Your task to perform on an android device: open a bookmark in the chrome app Image 0: 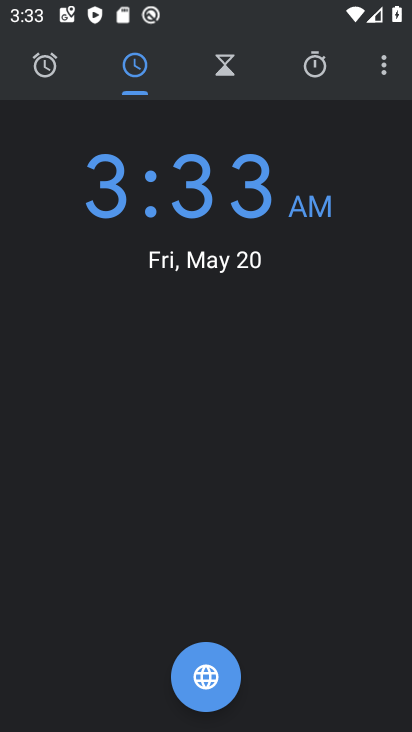
Step 0: press back button
Your task to perform on an android device: open a bookmark in the chrome app Image 1: 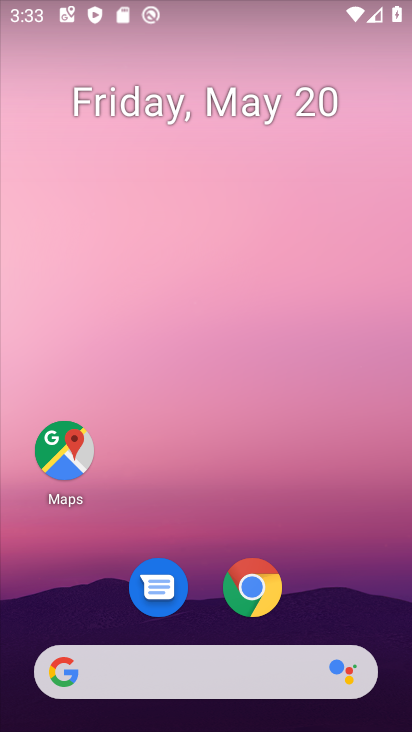
Step 1: drag from (320, 569) to (254, 22)
Your task to perform on an android device: open a bookmark in the chrome app Image 2: 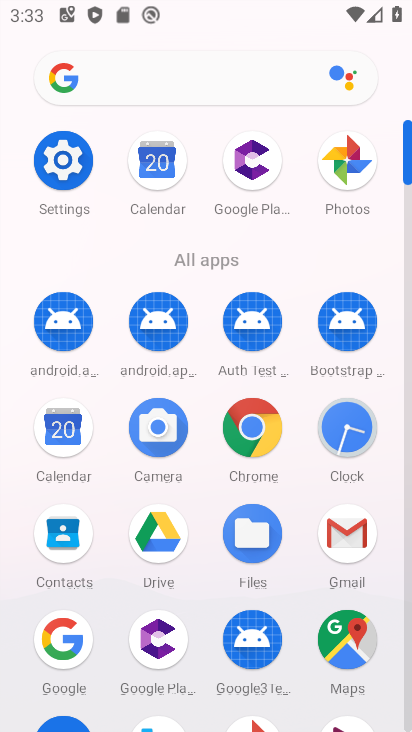
Step 2: click (249, 426)
Your task to perform on an android device: open a bookmark in the chrome app Image 3: 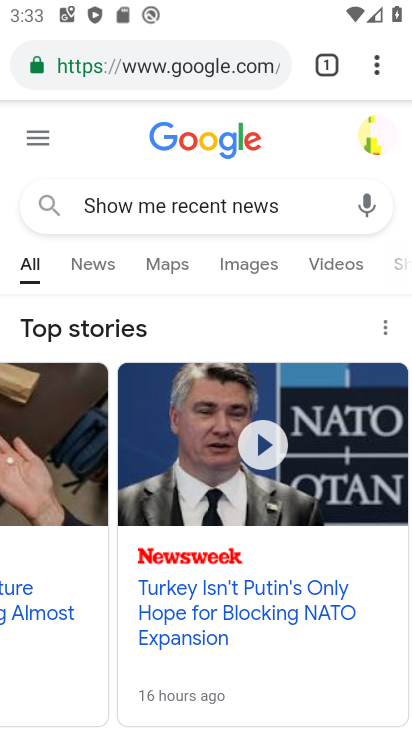
Step 3: task complete